Your task to perform on an android device: turn on sleep mode Image 0: 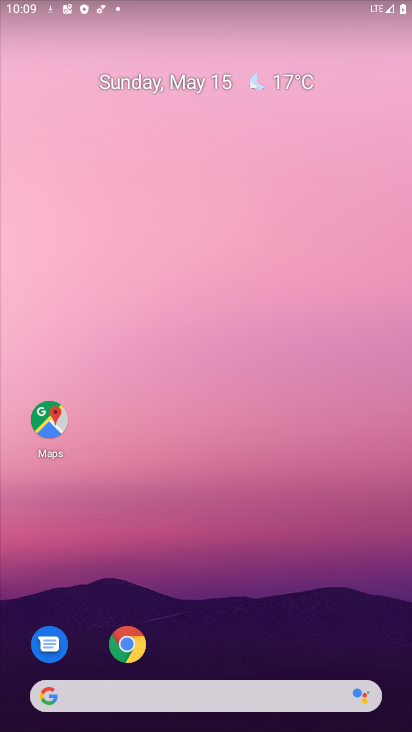
Step 0: drag from (289, 716) to (374, 305)
Your task to perform on an android device: turn on sleep mode Image 1: 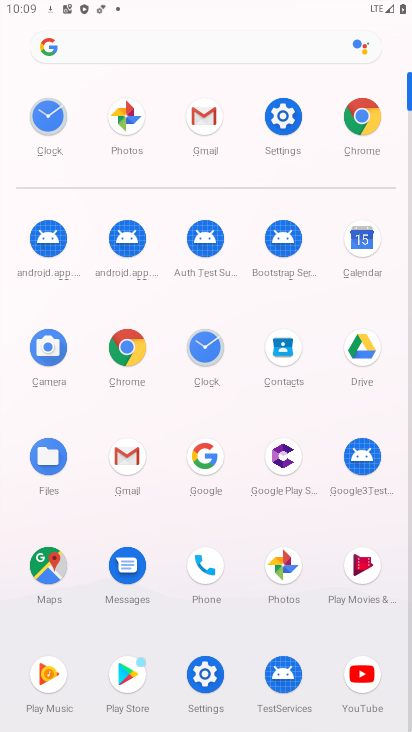
Step 1: click (278, 131)
Your task to perform on an android device: turn on sleep mode Image 2: 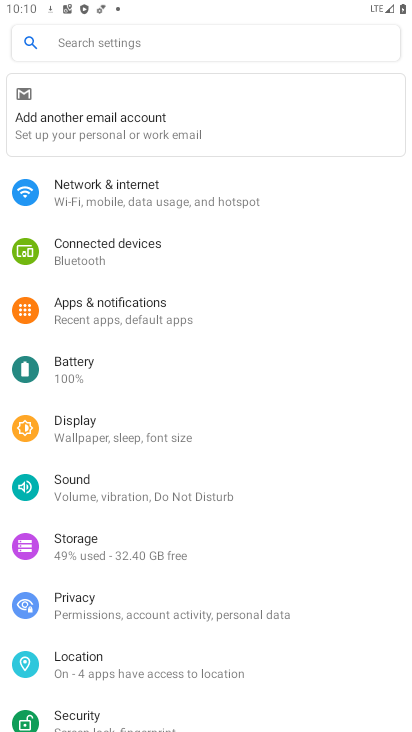
Step 2: click (148, 49)
Your task to perform on an android device: turn on sleep mode Image 3: 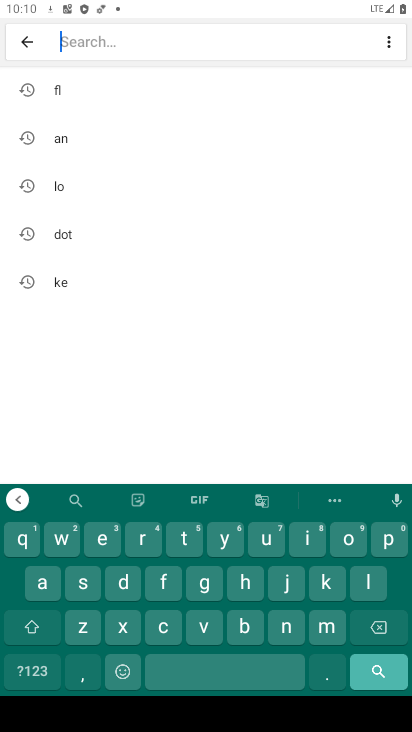
Step 3: click (88, 585)
Your task to perform on an android device: turn on sleep mode Image 4: 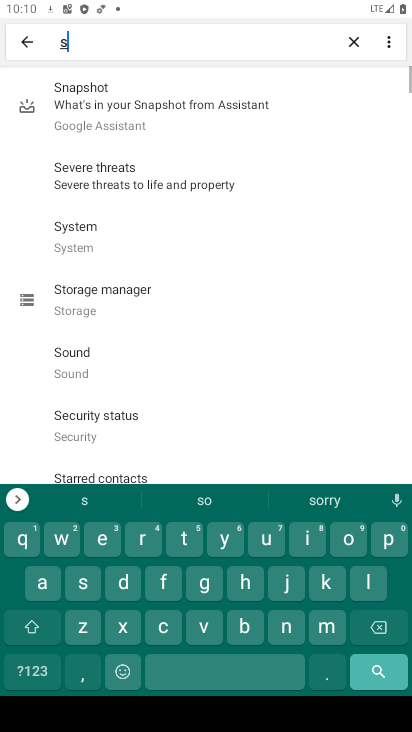
Step 4: click (369, 587)
Your task to perform on an android device: turn on sleep mode Image 5: 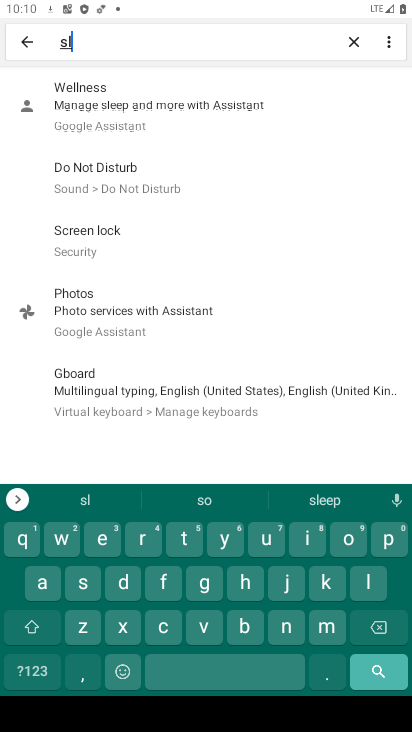
Step 5: click (163, 120)
Your task to perform on an android device: turn on sleep mode Image 6: 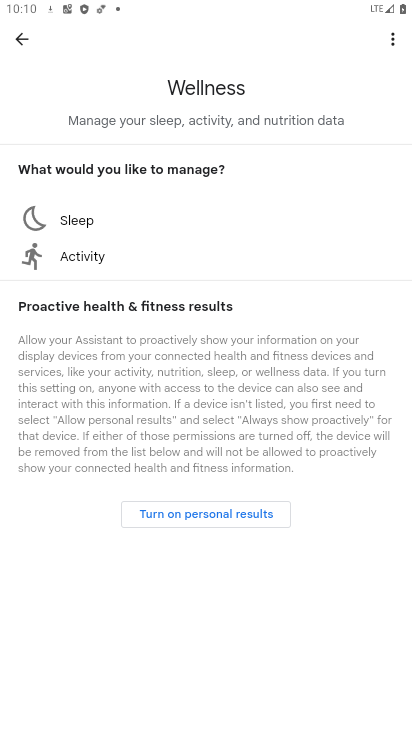
Step 6: click (100, 227)
Your task to perform on an android device: turn on sleep mode Image 7: 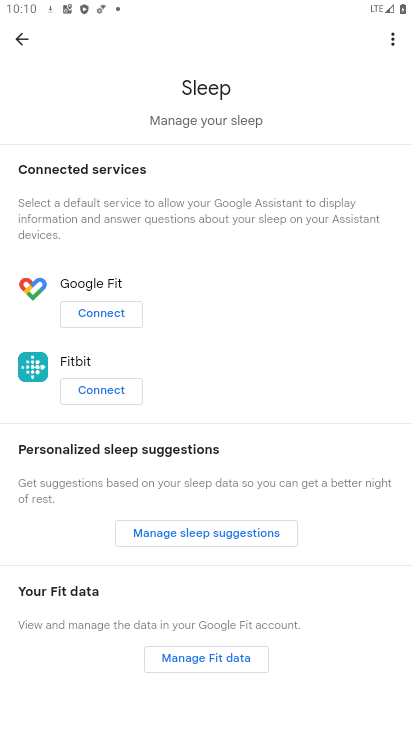
Step 7: task complete